Your task to perform on an android device: open wifi settings Image 0: 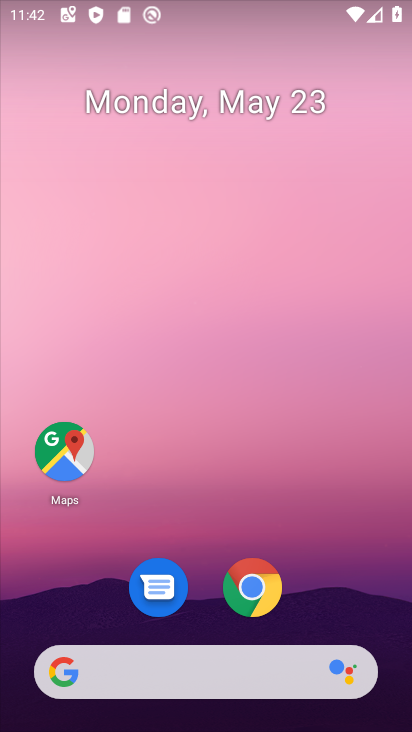
Step 0: drag from (342, 625) to (233, 59)
Your task to perform on an android device: open wifi settings Image 1: 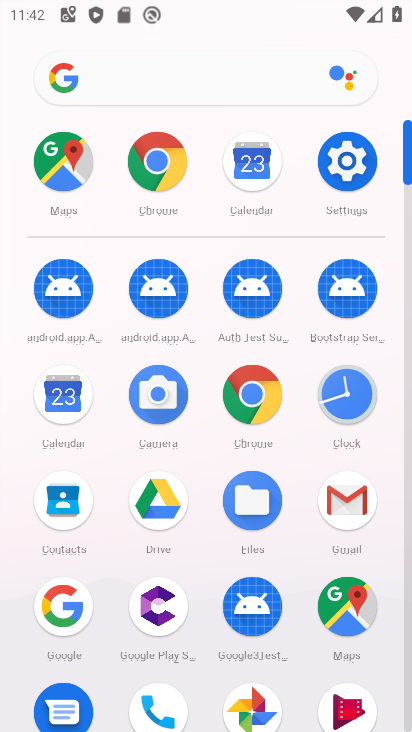
Step 1: click (339, 161)
Your task to perform on an android device: open wifi settings Image 2: 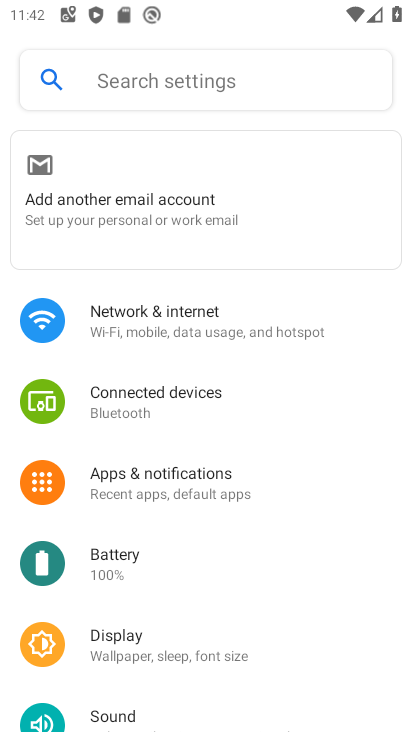
Step 2: click (203, 331)
Your task to perform on an android device: open wifi settings Image 3: 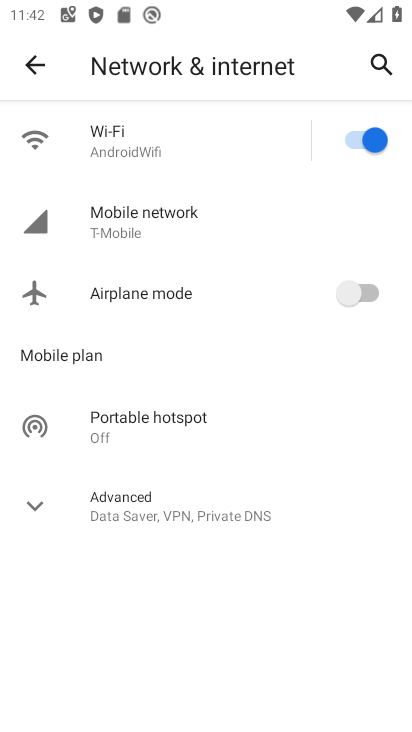
Step 3: click (162, 142)
Your task to perform on an android device: open wifi settings Image 4: 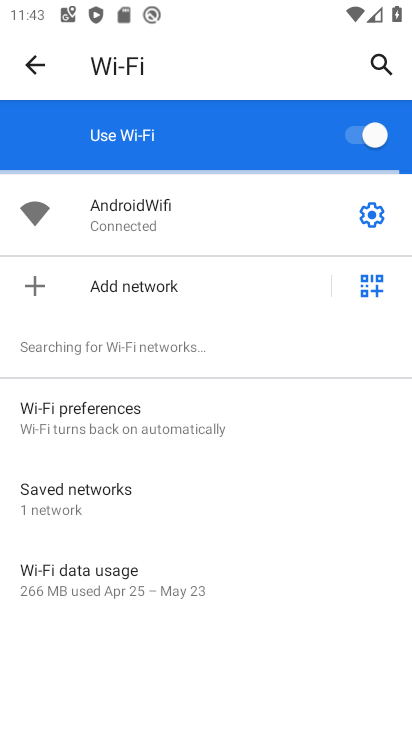
Step 4: task complete